Your task to perform on an android device: open app "Fetch Rewards" (install if not already installed) and enter user name: "Westwood@yahoo.com" and password: "qualifying" Image 0: 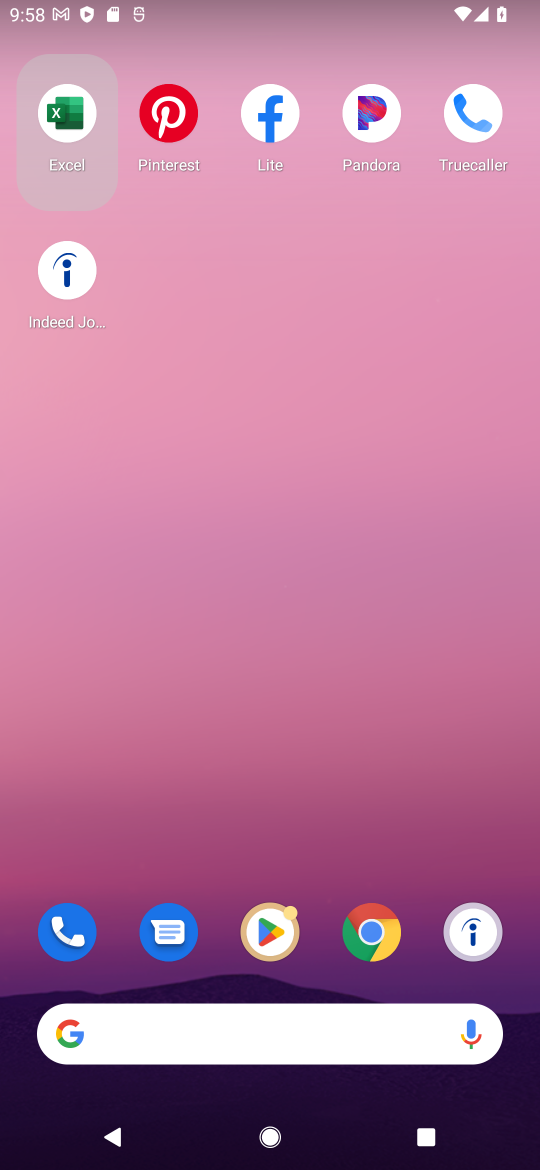
Step 0: click (260, 958)
Your task to perform on an android device: open app "Fetch Rewards" (install if not already installed) and enter user name: "Westwood@yahoo.com" and password: "qualifying" Image 1: 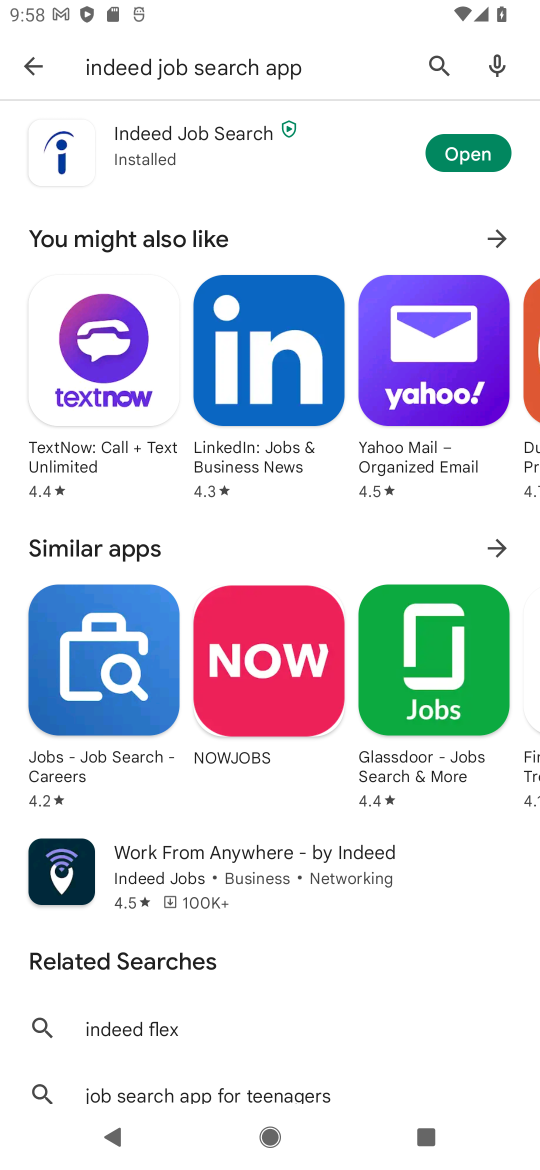
Step 1: click (442, 68)
Your task to perform on an android device: open app "Fetch Rewards" (install if not already installed) and enter user name: "Westwood@yahoo.com" and password: "qualifying" Image 2: 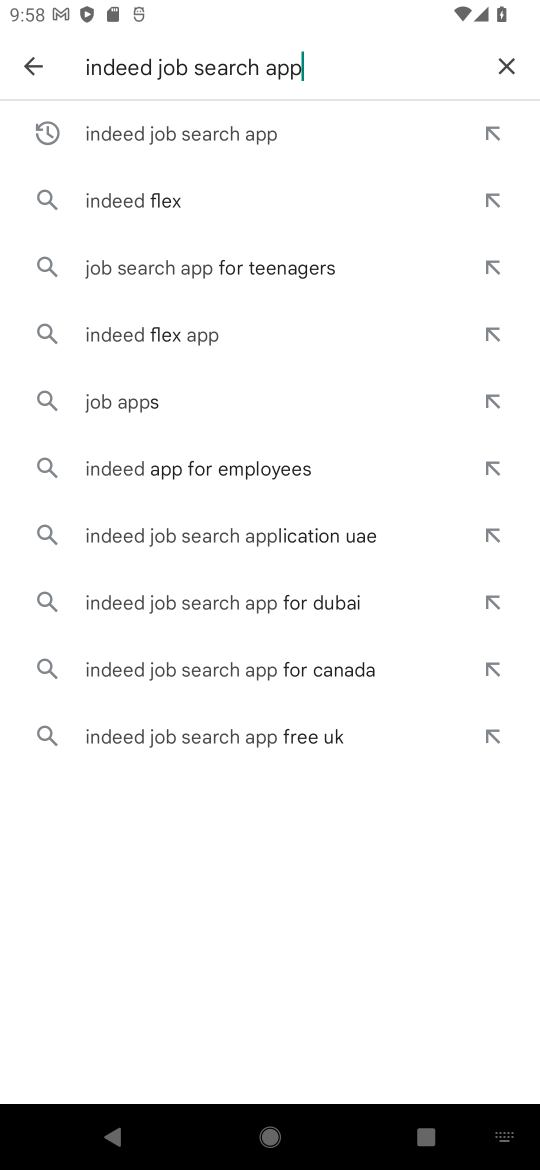
Step 2: click (508, 62)
Your task to perform on an android device: open app "Fetch Rewards" (install if not already installed) and enter user name: "Westwood@yahoo.com" and password: "qualifying" Image 3: 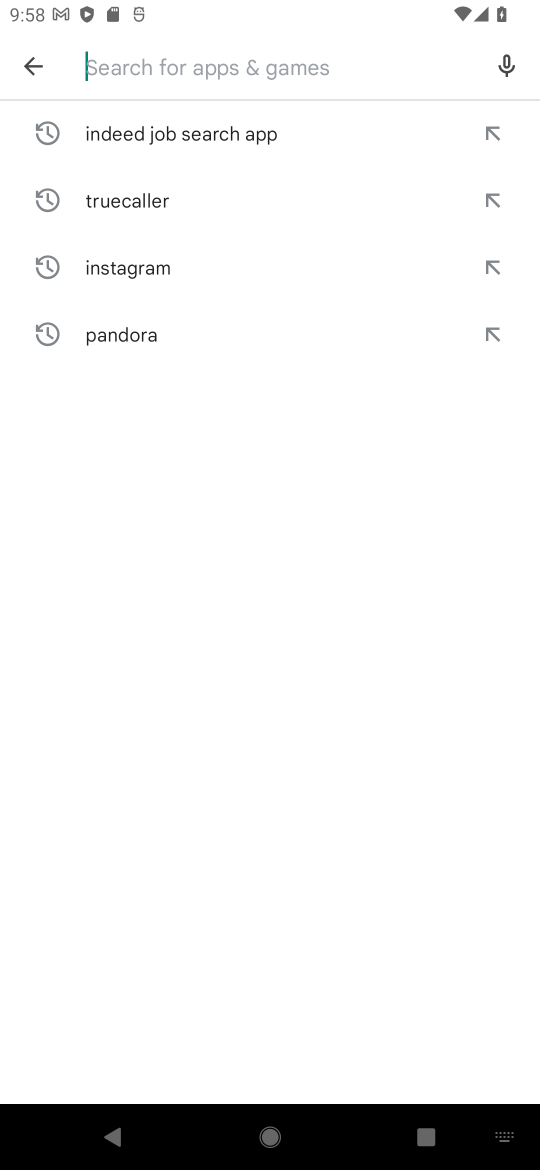
Step 3: type "fetch rewards"
Your task to perform on an android device: open app "Fetch Rewards" (install if not already installed) and enter user name: "Westwood@yahoo.com" and password: "qualifying" Image 4: 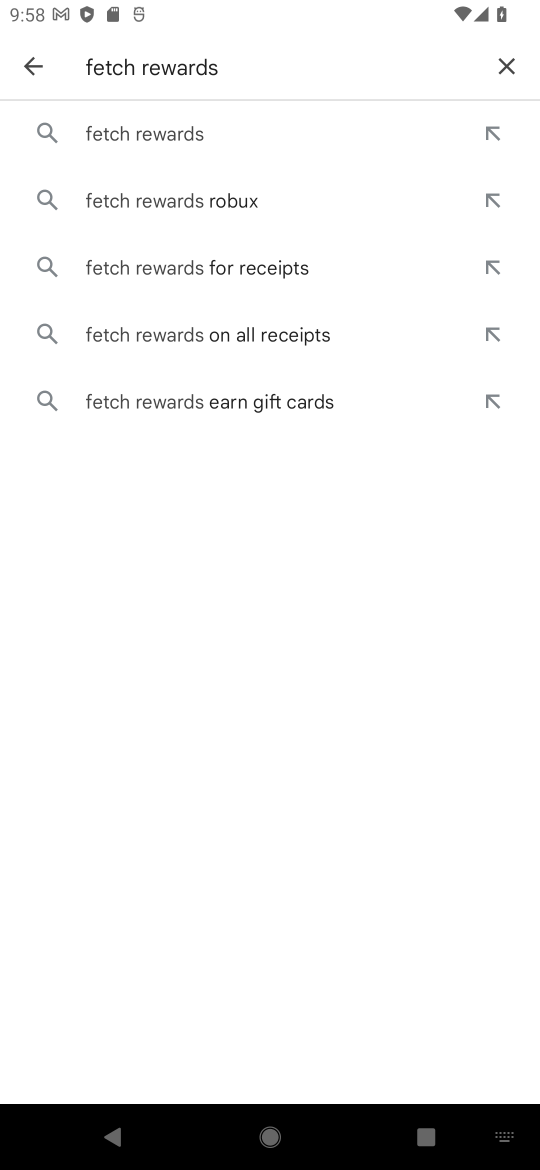
Step 4: click (190, 115)
Your task to perform on an android device: open app "Fetch Rewards" (install if not already installed) and enter user name: "Westwood@yahoo.com" and password: "qualifying" Image 5: 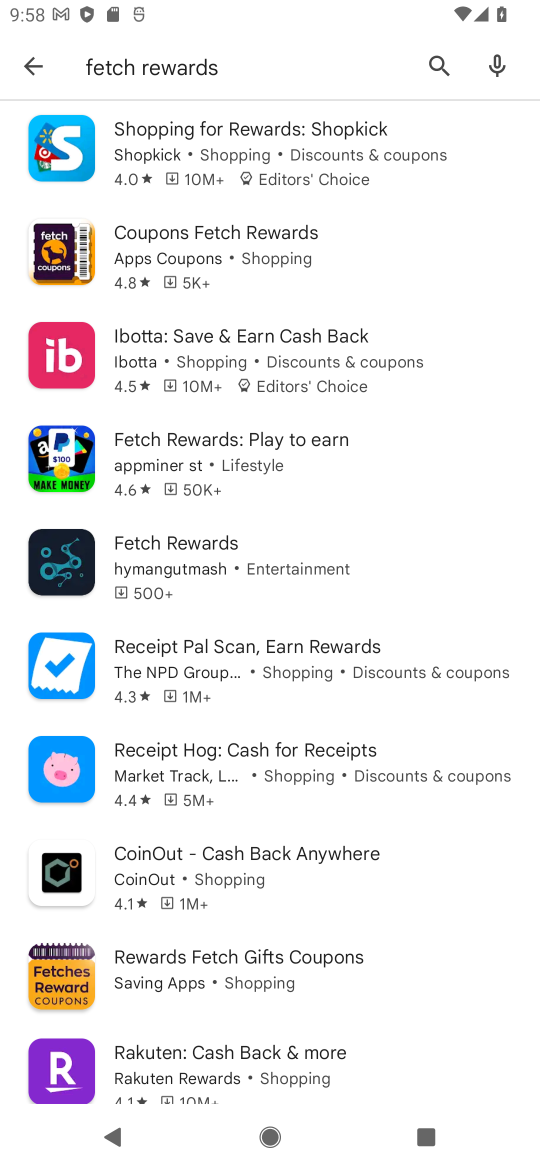
Step 5: task complete